Your task to perform on an android device: Open wifi settings Image 0: 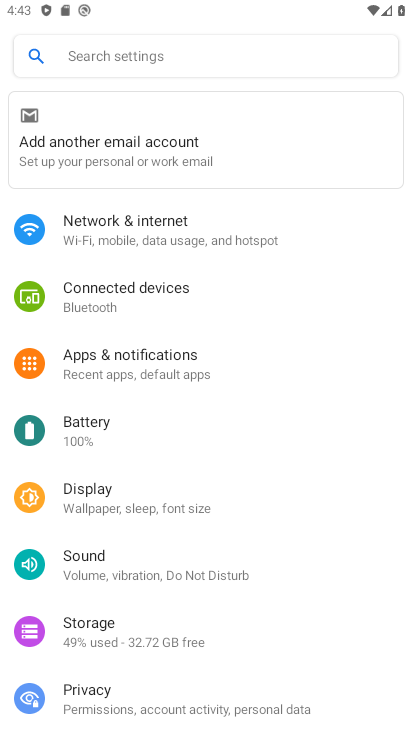
Step 0: press home button
Your task to perform on an android device: Open wifi settings Image 1: 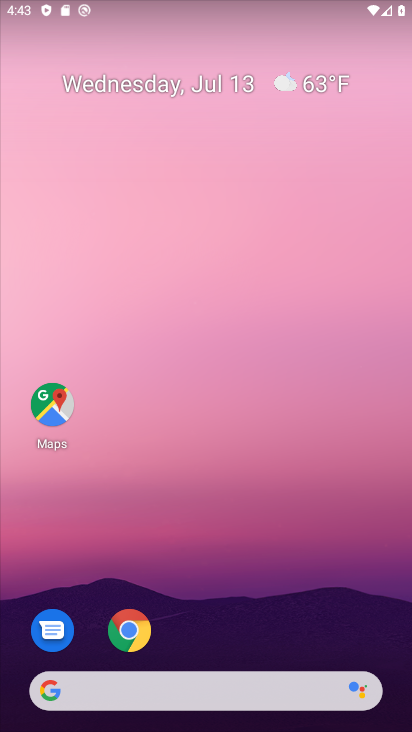
Step 1: drag from (263, 589) to (235, 2)
Your task to perform on an android device: Open wifi settings Image 2: 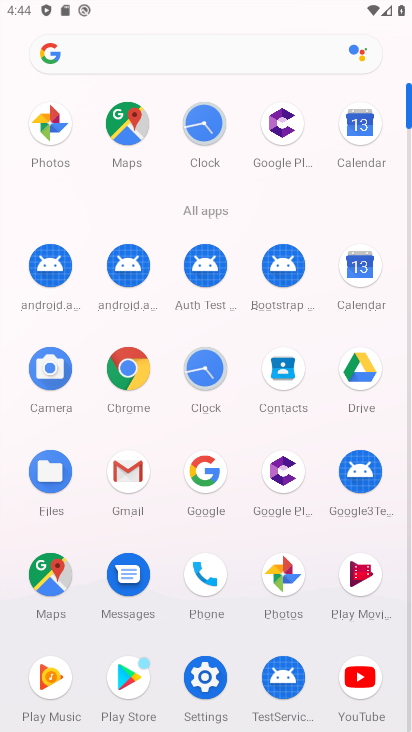
Step 2: click (201, 672)
Your task to perform on an android device: Open wifi settings Image 3: 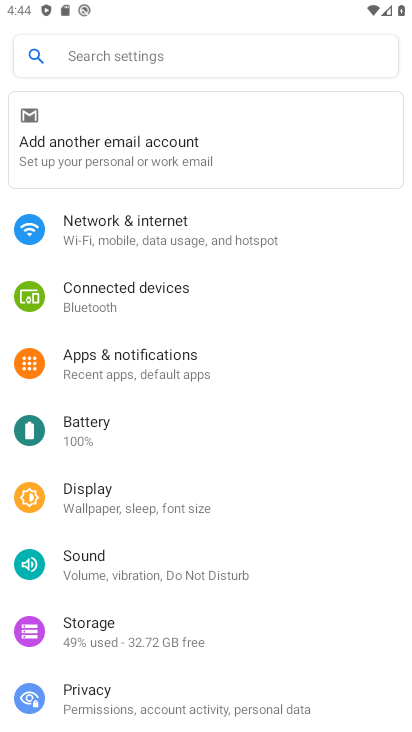
Step 3: click (115, 229)
Your task to perform on an android device: Open wifi settings Image 4: 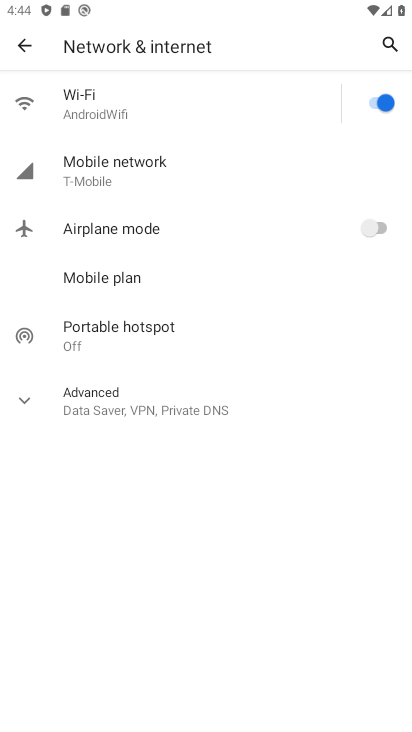
Step 4: click (113, 116)
Your task to perform on an android device: Open wifi settings Image 5: 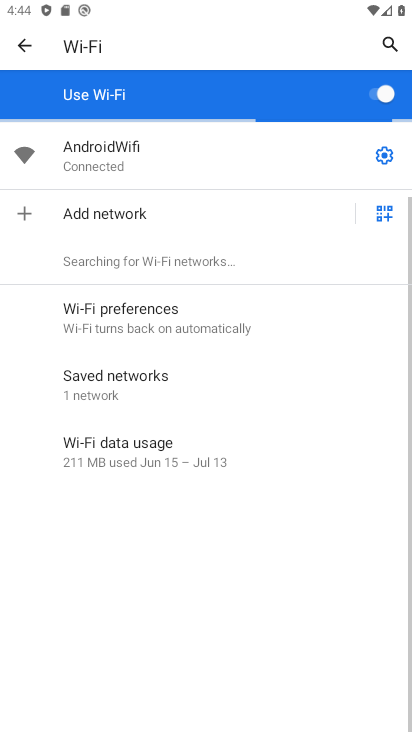
Step 5: task complete